Your task to perform on an android device: turn on javascript in the chrome app Image 0: 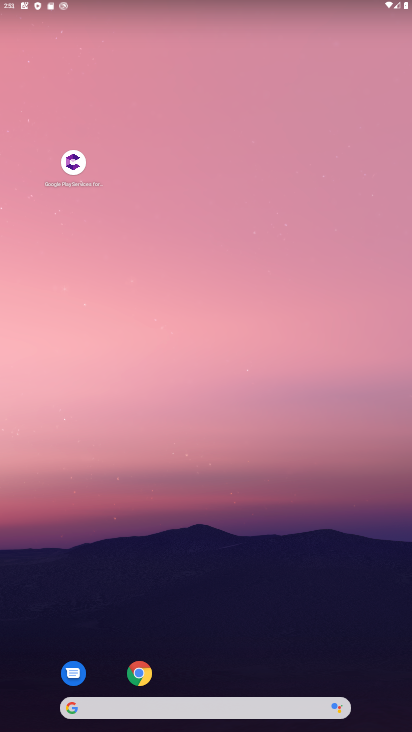
Step 0: drag from (281, 622) to (240, 231)
Your task to perform on an android device: turn on javascript in the chrome app Image 1: 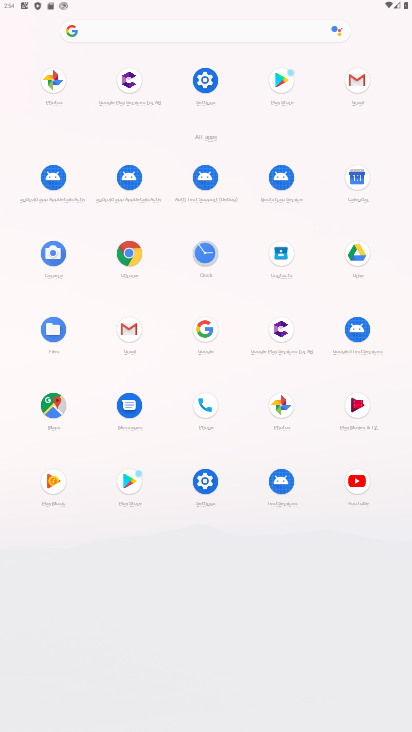
Step 1: click (131, 246)
Your task to perform on an android device: turn on javascript in the chrome app Image 2: 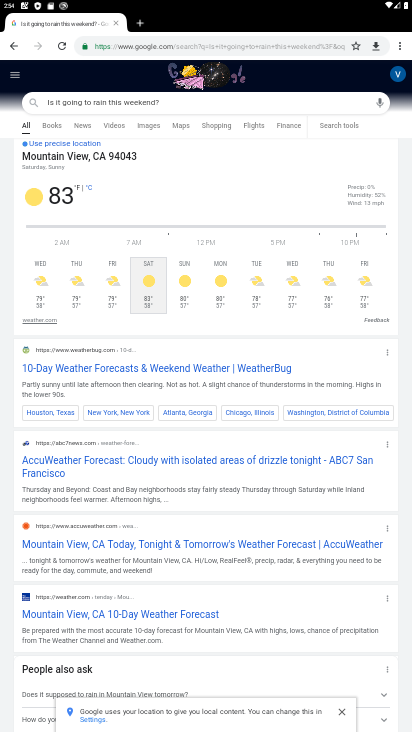
Step 2: drag from (403, 43) to (313, 283)
Your task to perform on an android device: turn on javascript in the chrome app Image 3: 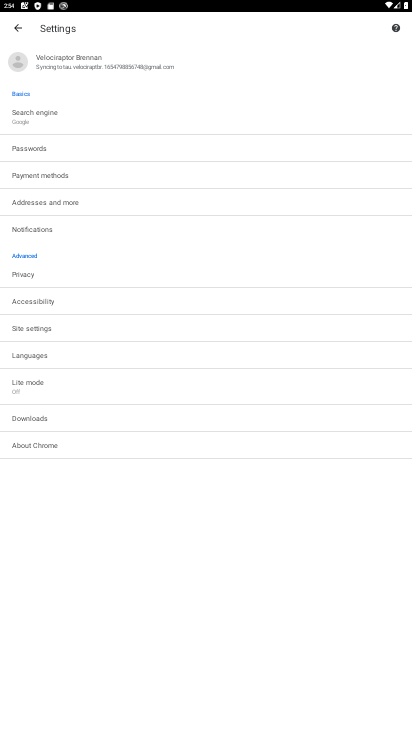
Step 3: click (47, 325)
Your task to perform on an android device: turn on javascript in the chrome app Image 4: 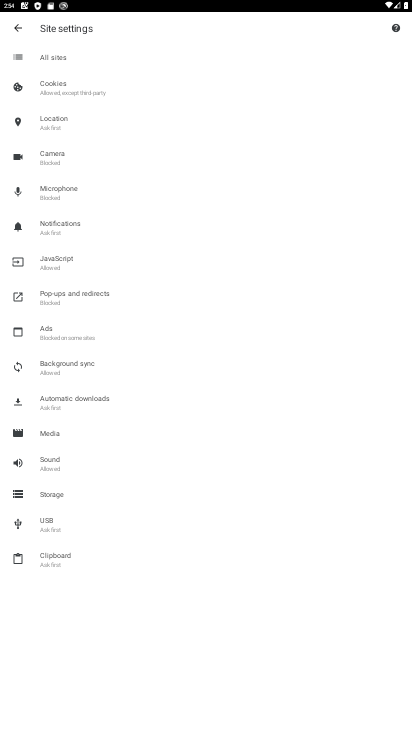
Step 4: click (50, 257)
Your task to perform on an android device: turn on javascript in the chrome app Image 5: 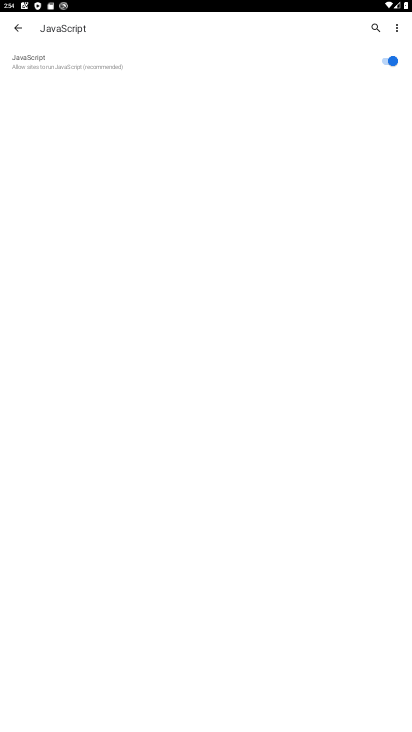
Step 5: task complete